Your task to perform on an android device: Go to Reddit.com Image 0: 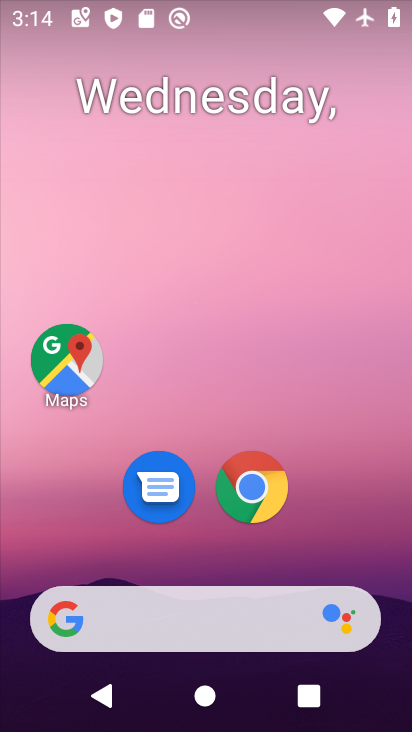
Step 0: drag from (294, 521) to (233, 28)
Your task to perform on an android device: Go to Reddit.com Image 1: 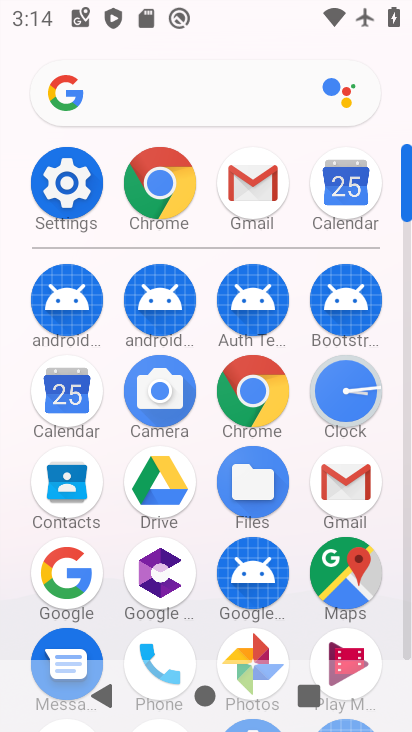
Step 1: click (167, 178)
Your task to perform on an android device: Go to Reddit.com Image 2: 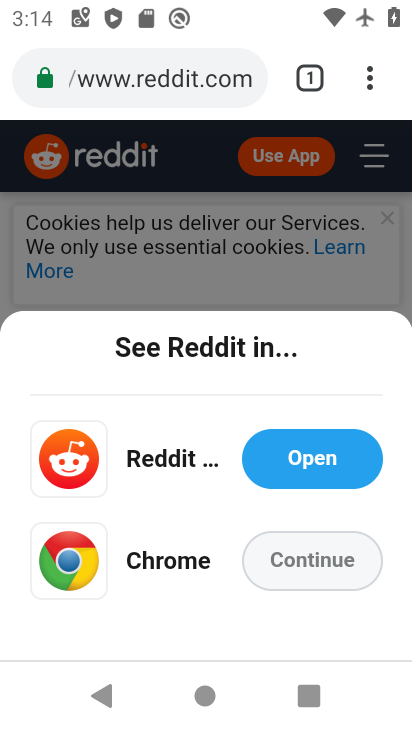
Step 2: click (151, 65)
Your task to perform on an android device: Go to Reddit.com Image 3: 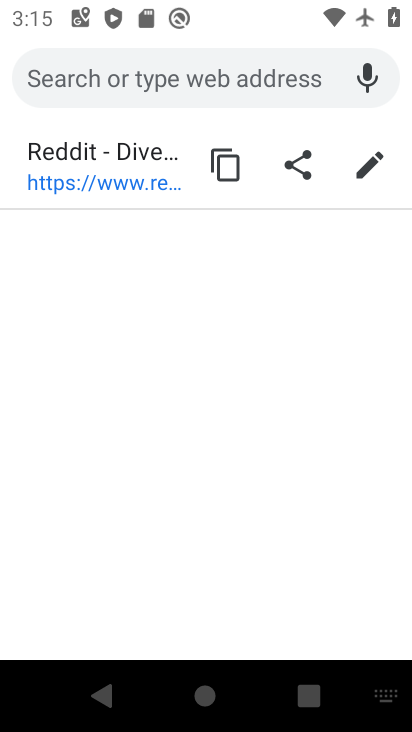
Step 3: click (95, 166)
Your task to perform on an android device: Go to Reddit.com Image 4: 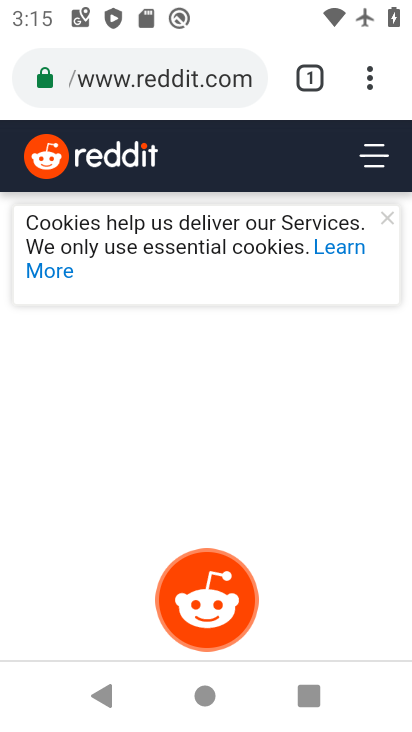
Step 4: task complete